Your task to perform on an android device: Show the shopping cart on target. Add razer kraken to the cart on target Image 0: 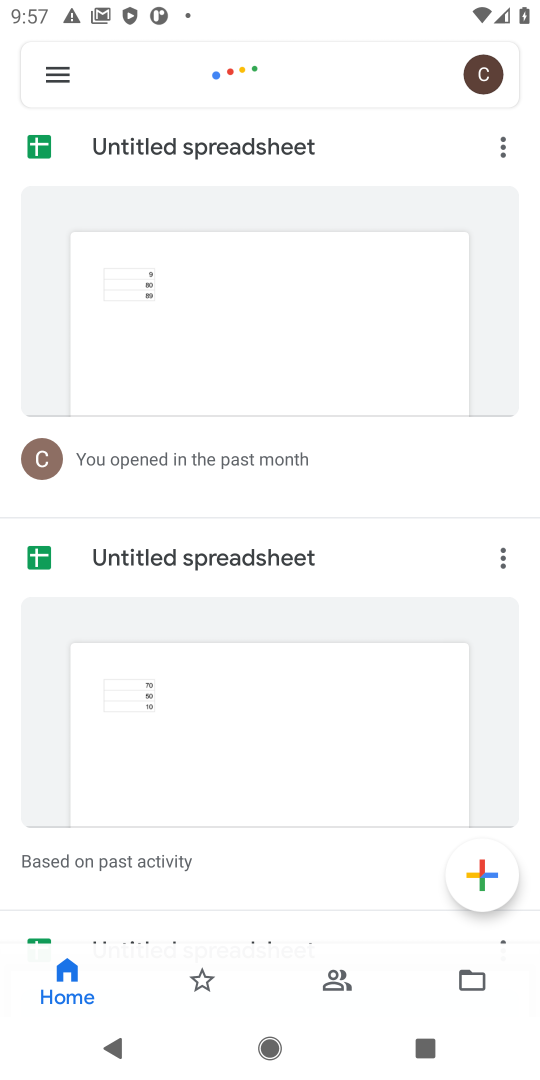
Step 0: press home button
Your task to perform on an android device: Show the shopping cart on target. Add razer kraken to the cart on target Image 1: 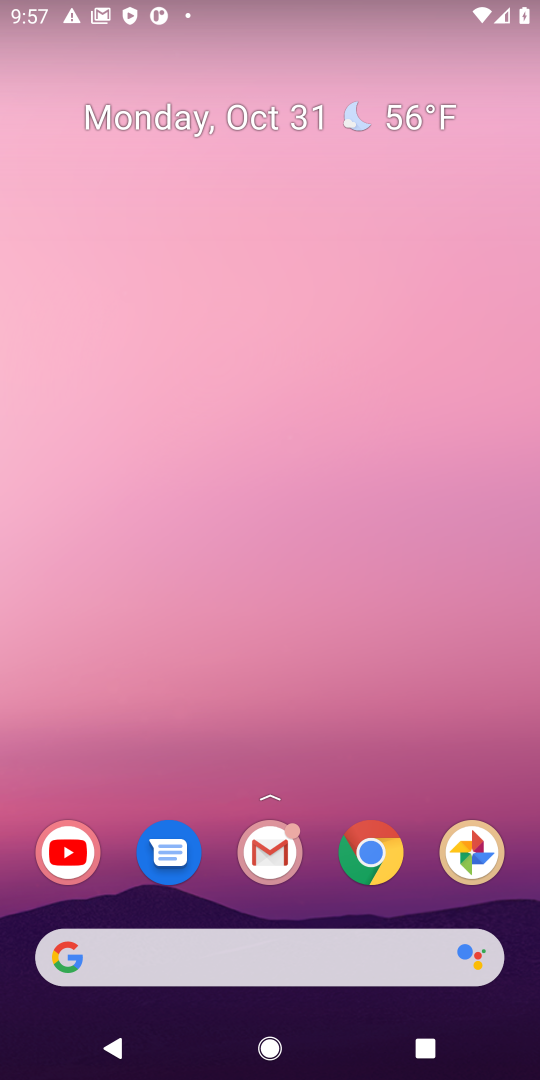
Step 1: drag from (314, 794) to (385, 0)
Your task to perform on an android device: Show the shopping cart on target. Add razer kraken to the cart on target Image 2: 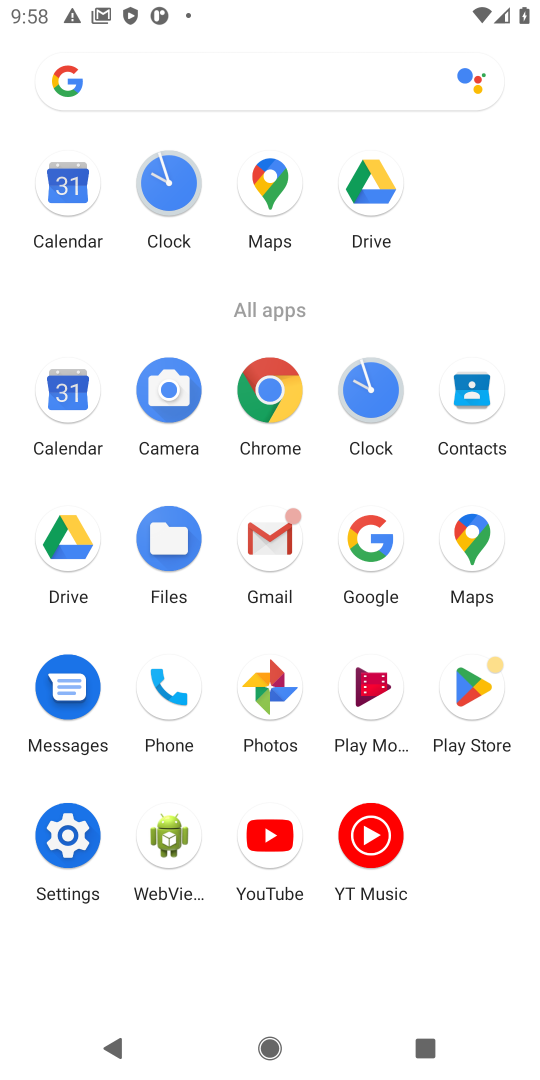
Step 2: click (270, 389)
Your task to perform on an android device: Show the shopping cart on target. Add razer kraken to the cart on target Image 3: 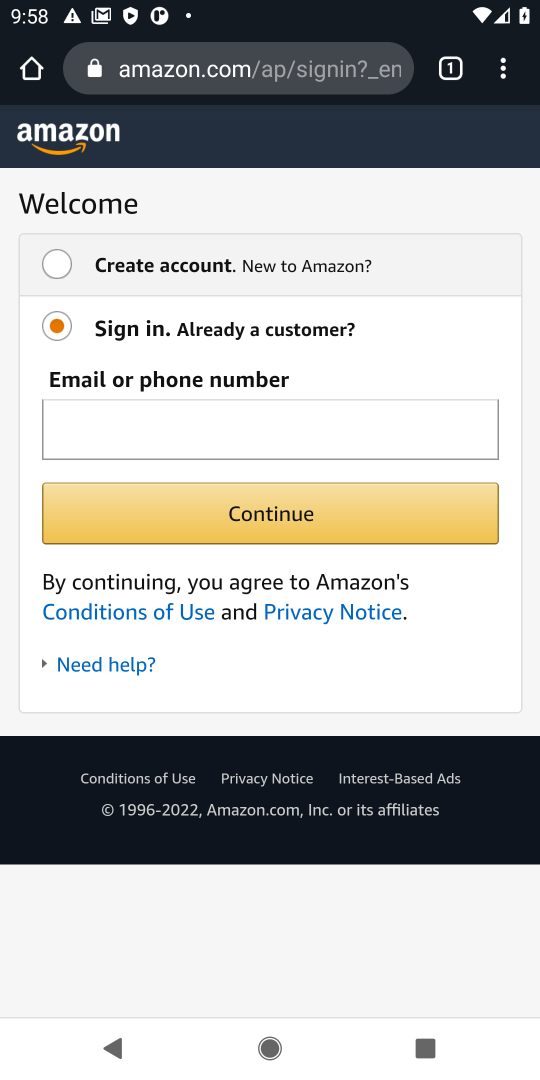
Step 3: click (175, 67)
Your task to perform on an android device: Show the shopping cart on target. Add razer kraken to the cart on target Image 4: 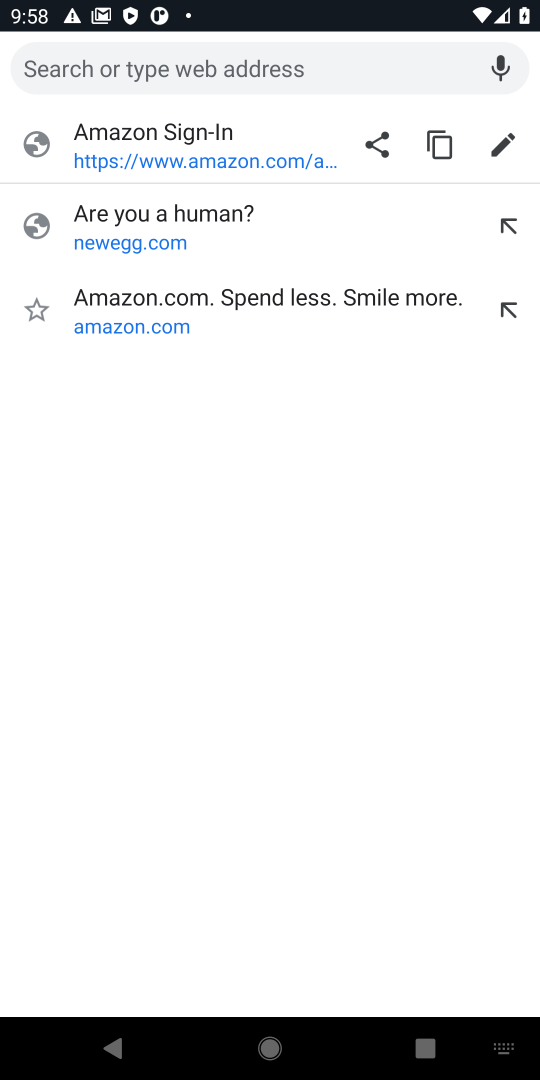
Step 4: type "target"
Your task to perform on an android device: Show the shopping cart on target. Add razer kraken to the cart on target Image 5: 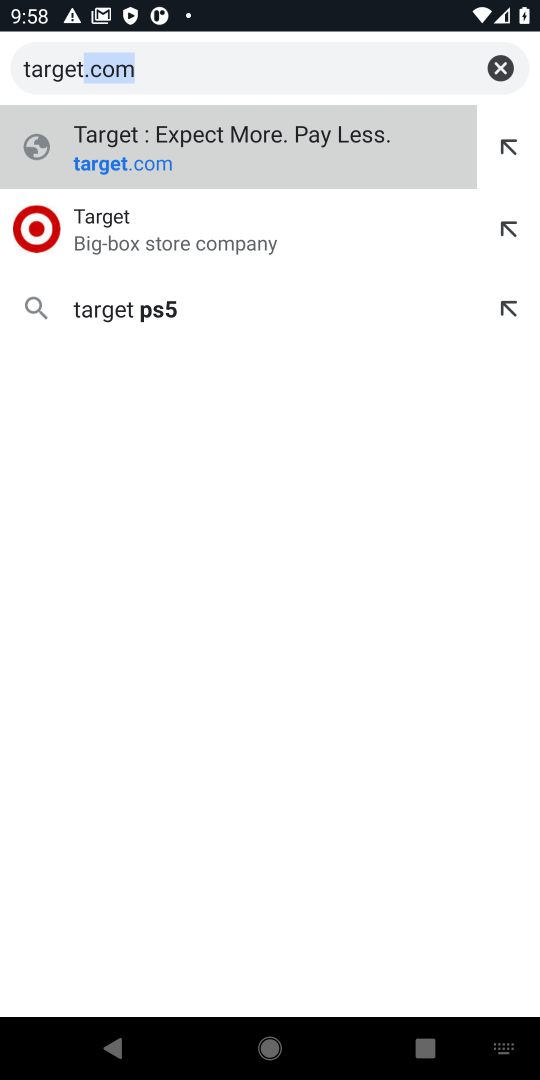
Step 5: type ""
Your task to perform on an android device: Show the shopping cart on target. Add razer kraken to the cart on target Image 6: 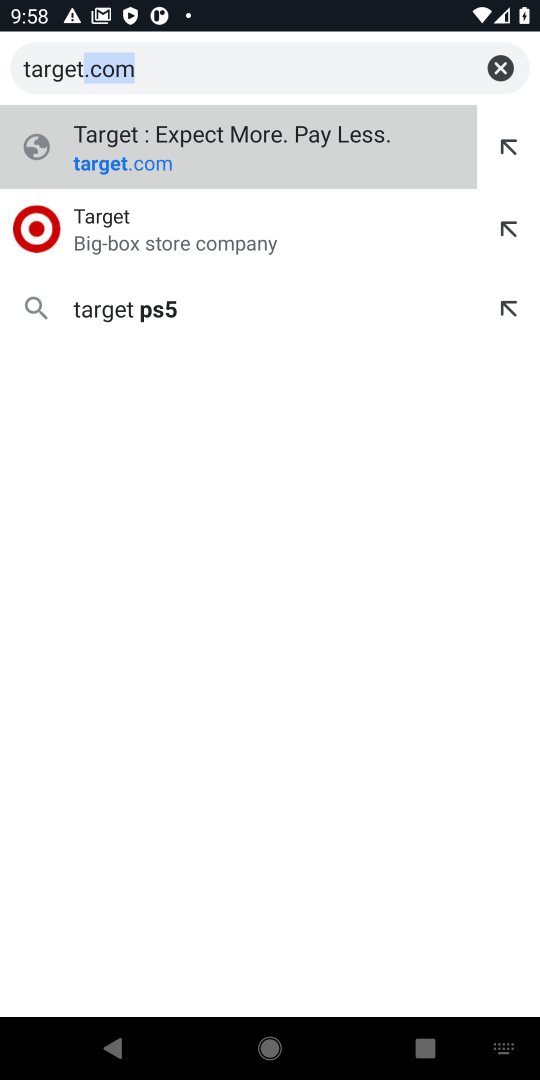
Step 6: click (155, 239)
Your task to perform on an android device: Show the shopping cart on target. Add razer kraken to the cart on target Image 7: 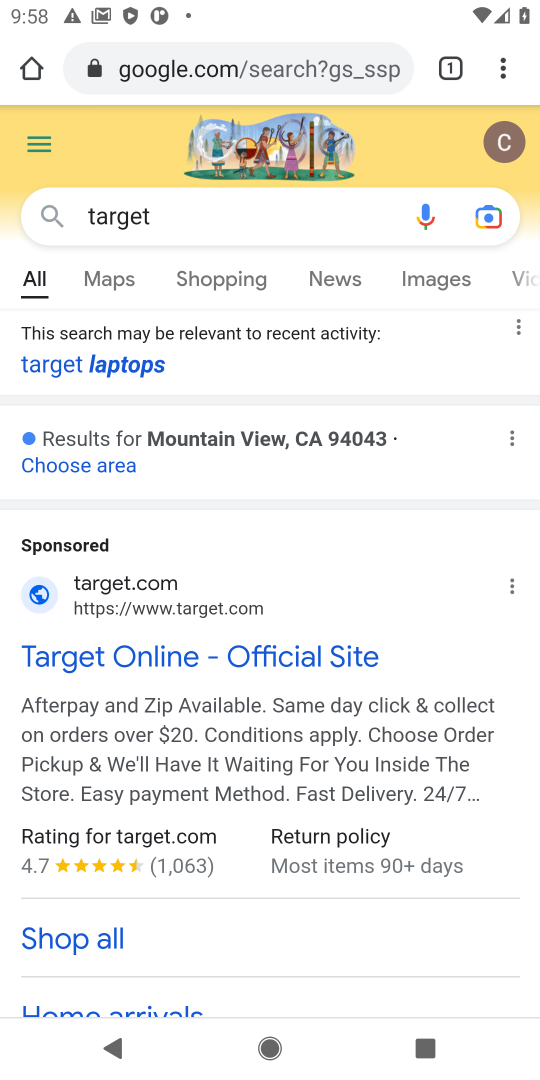
Step 7: click (156, 653)
Your task to perform on an android device: Show the shopping cart on target. Add razer kraken to the cart on target Image 8: 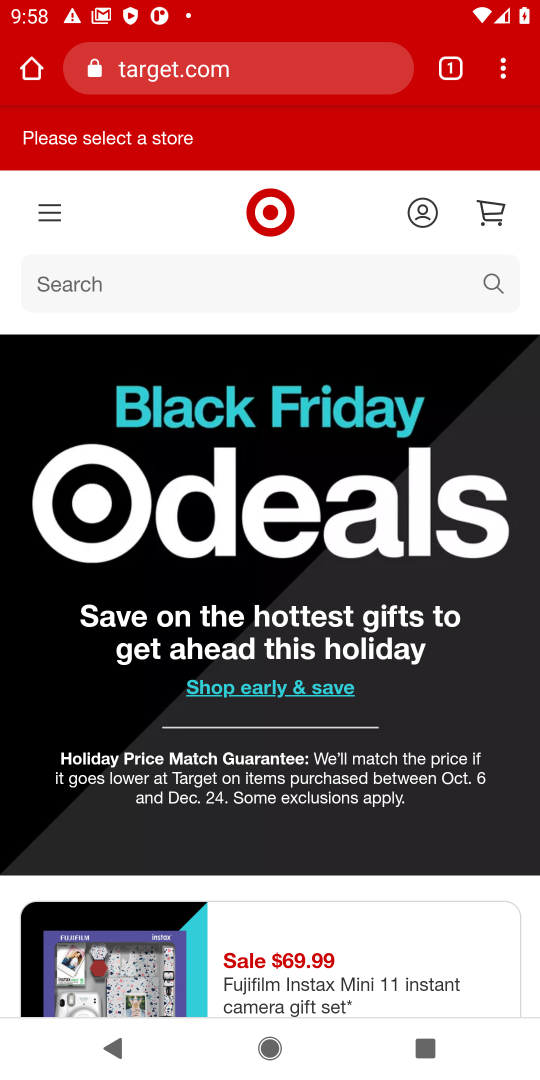
Step 8: click (100, 282)
Your task to perform on an android device: Show the shopping cart on target. Add razer kraken to the cart on target Image 9: 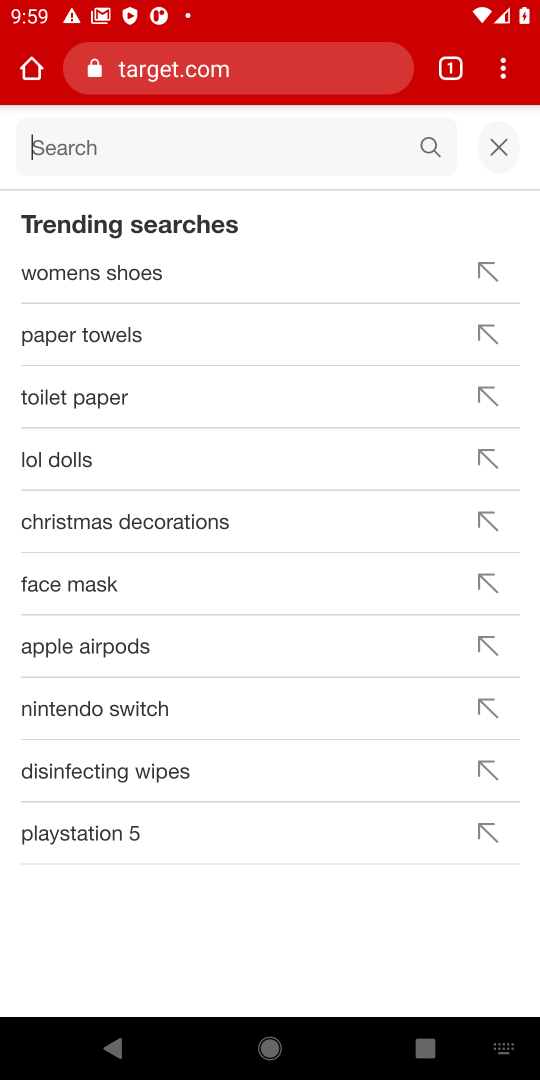
Step 9: type "razer kraken"
Your task to perform on an android device: Show the shopping cart on target. Add razer kraken to the cart on target Image 10: 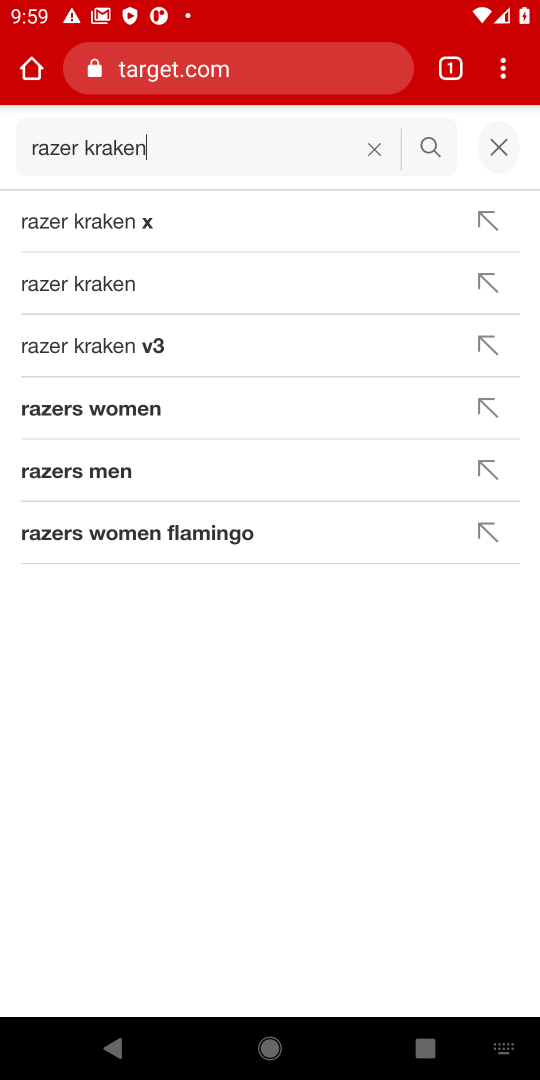
Step 10: click (151, 282)
Your task to perform on an android device: Show the shopping cart on target. Add razer kraken to the cart on target Image 11: 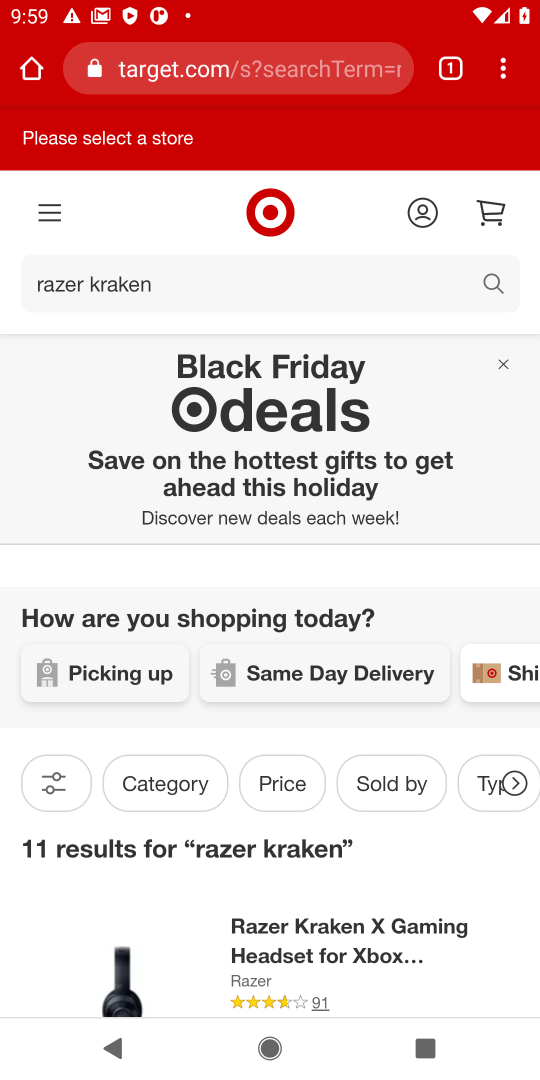
Step 11: drag from (406, 886) to (420, 420)
Your task to perform on an android device: Show the shopping cart on target. Add razer kraken to the cart on target Image 12: 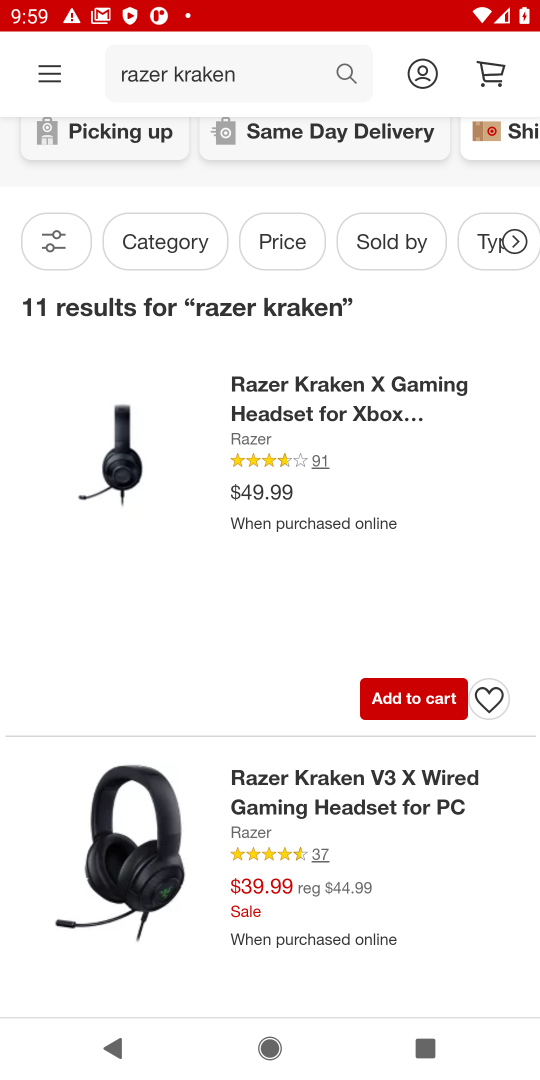
Step 12: click (250, 391)
Your task to perform on an android device: Show the shopping cart on target. Add razer kraken to the cart on target Image 13: 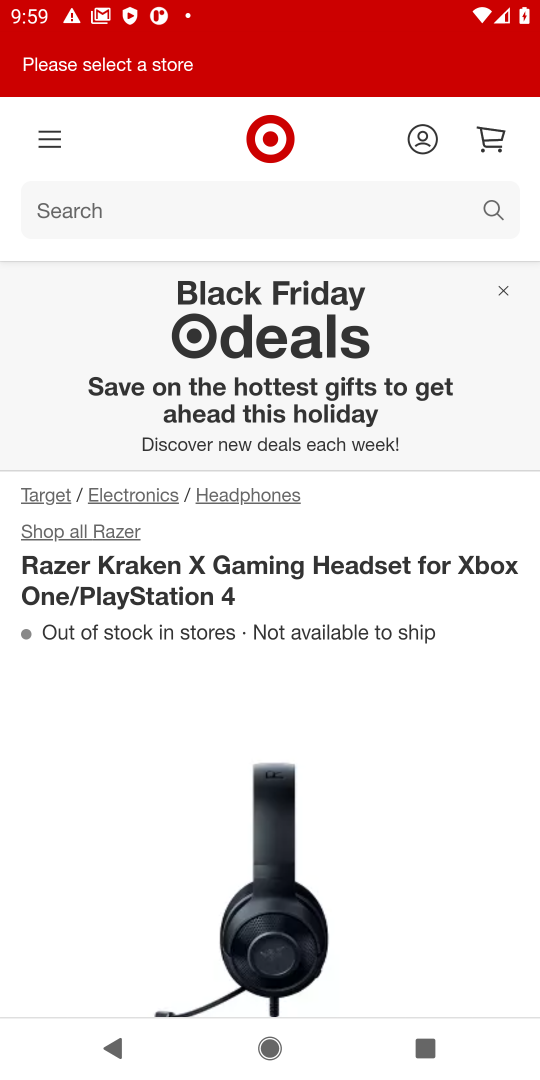
Step 13: drag from (412, 849) to (435, 264)
Your task to perform on an android device: Show the shopping cart on target. Add razer kraken to the cart on target Image 14: 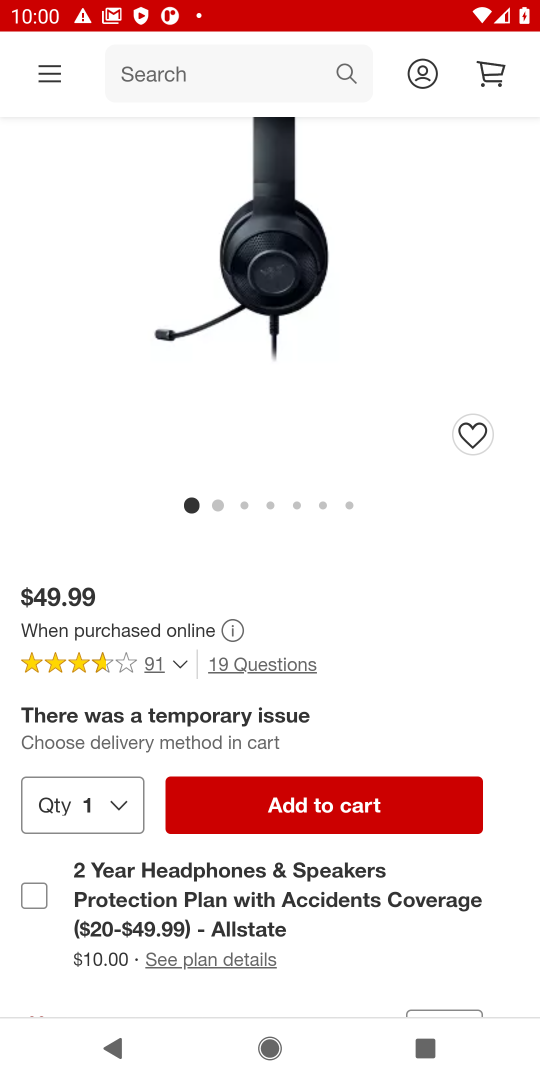
Step 14: click (322, 802)
Your task to perform on an android device: Show the shopping cart on target. Add razer kraken to the cart on target Image 15: 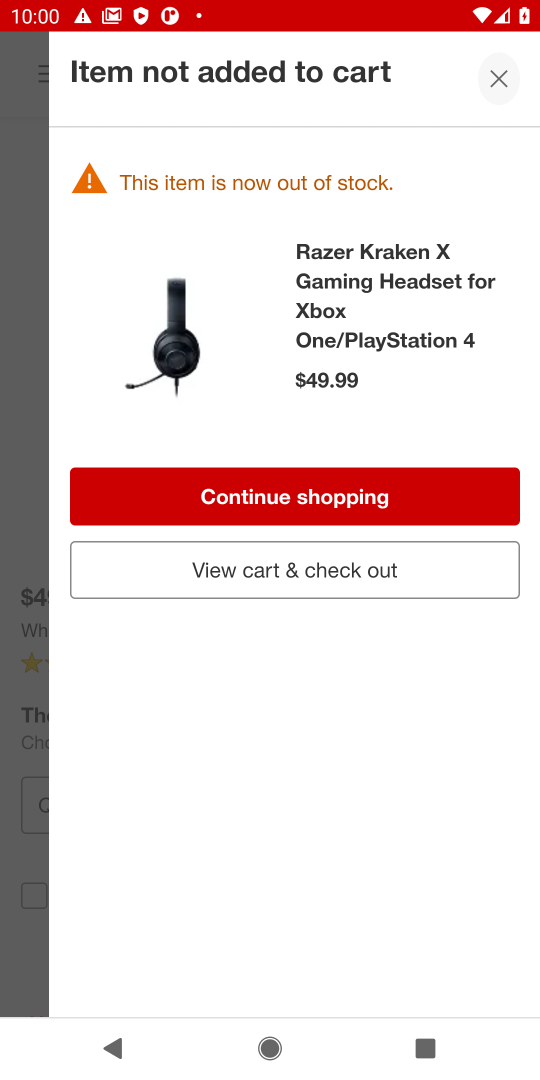
Step 15: click (501, 76)
Your task to perform on an android device: Show the shopping cart on target. Add razer kraken to the cart on target Image 16: 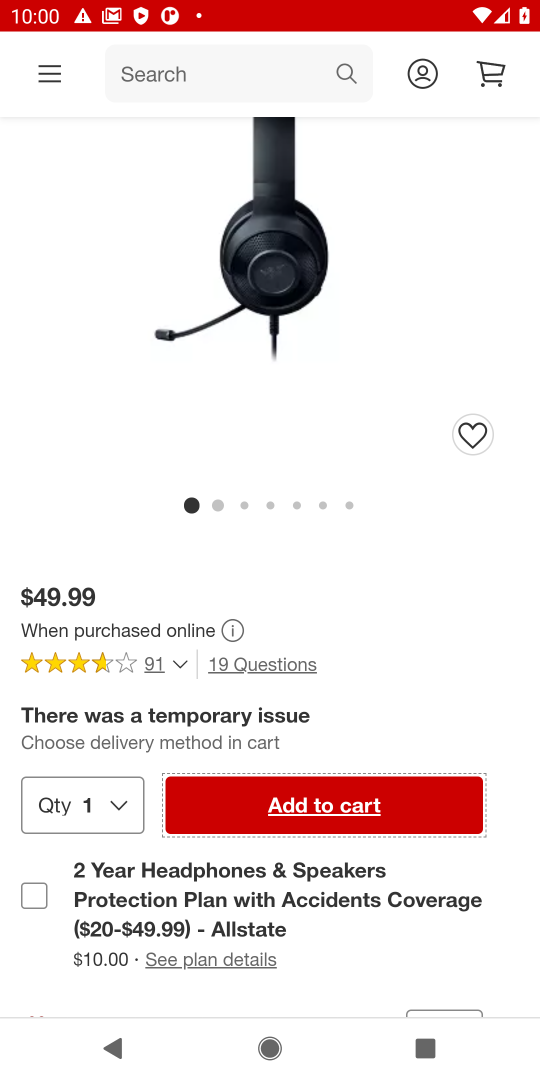
Step 16: click (497, 70)
Your task to perform on an android device: Show the shopping cart on target. Add razer kraken to the cart on target Image 17: 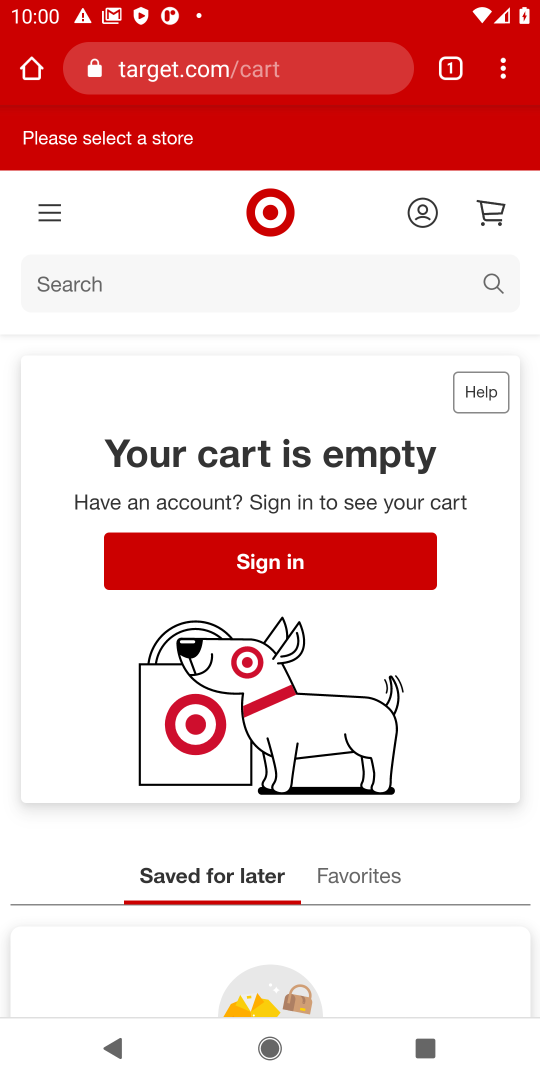
Step 17: press back button
Your task to perform on an android device: Show the shopping cart on target. Add razer kraken to the cart on target Image 18: 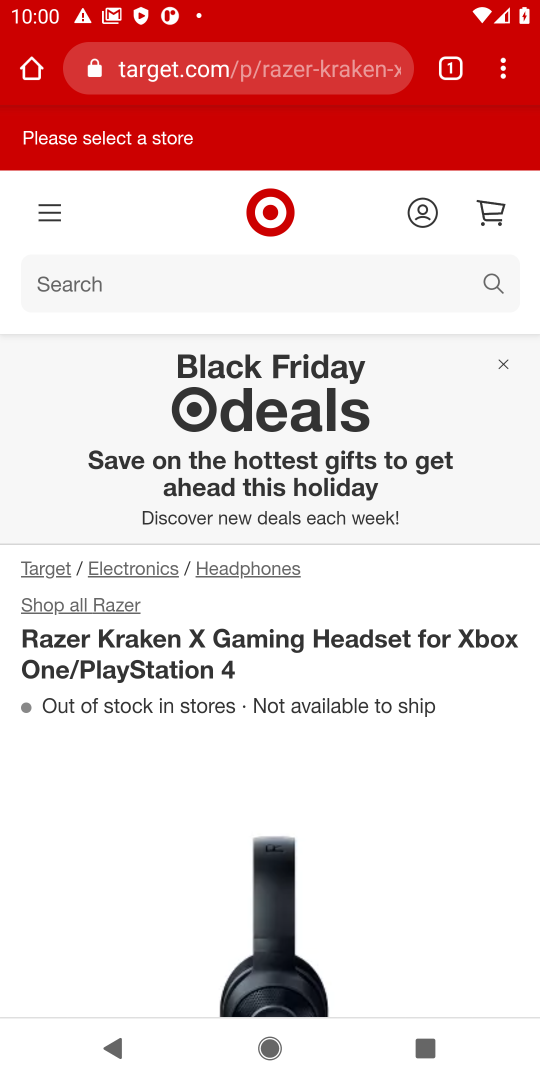
Step 18: drag from (282, 798) to (325, 174)
Your task to perform on an android device: Show the shopping cart on target. Add razer kraken to the cart on target Image 19: 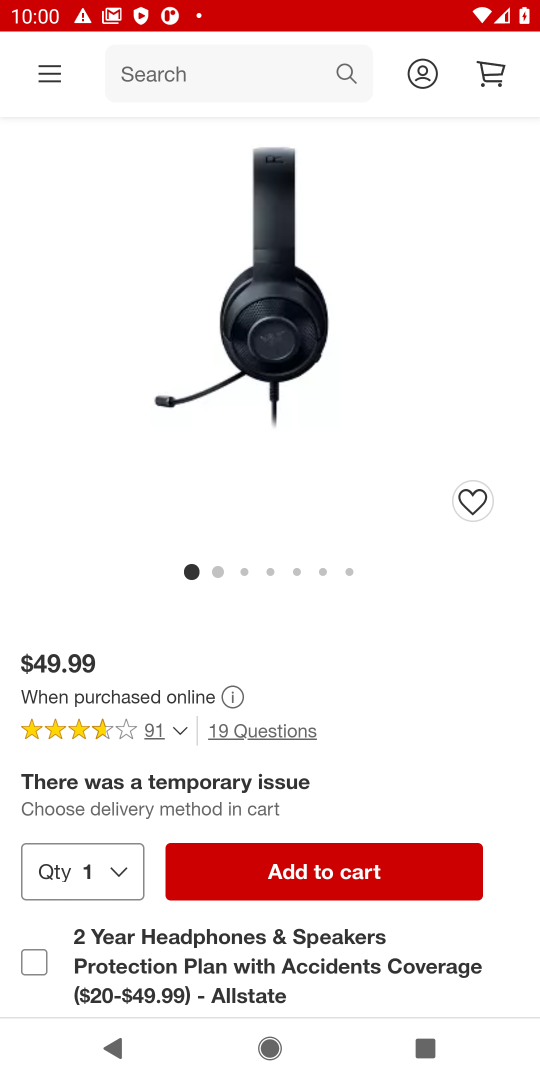
Step 19: click (316, 872)
Your task to perform on an android device: Show the shopping cart on target. Add razer kraken to the cart on target Image 20: 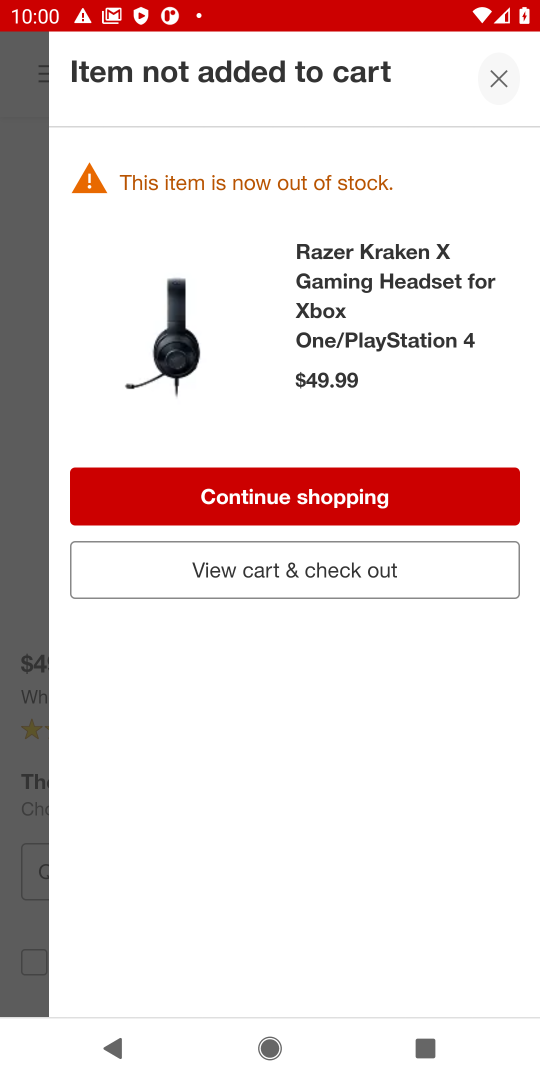
Step 20: click (498, 73)
Your task to perform on an android device: Show the shopping cart on target. Add razer kraken to the cart on target Image 21: 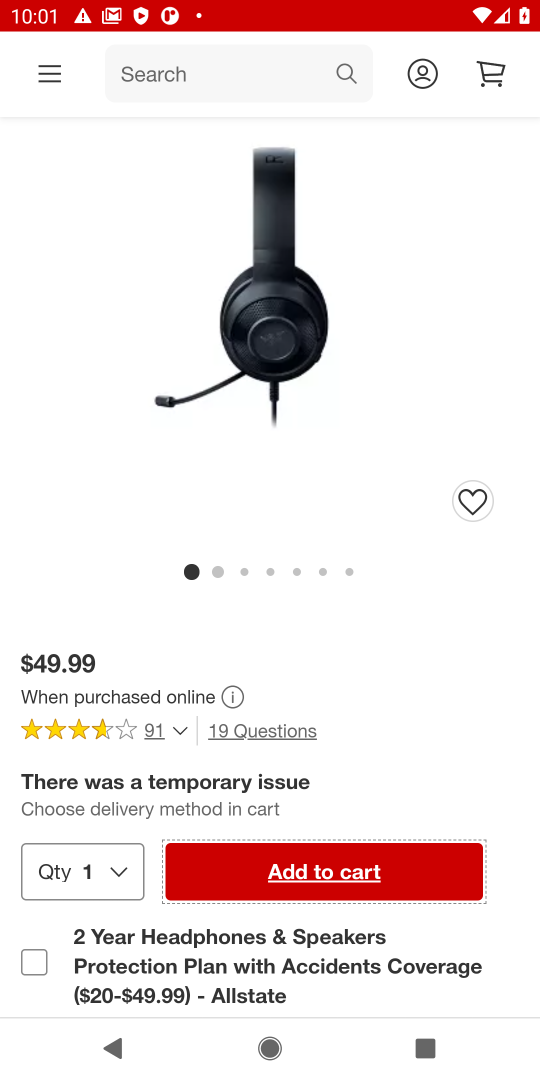
Step 21: drag from (180, 937) to (205, 188)
Your task to perform on an android device: Show the shopping cart on target. Add razer kraken to the cart on target Image 22: 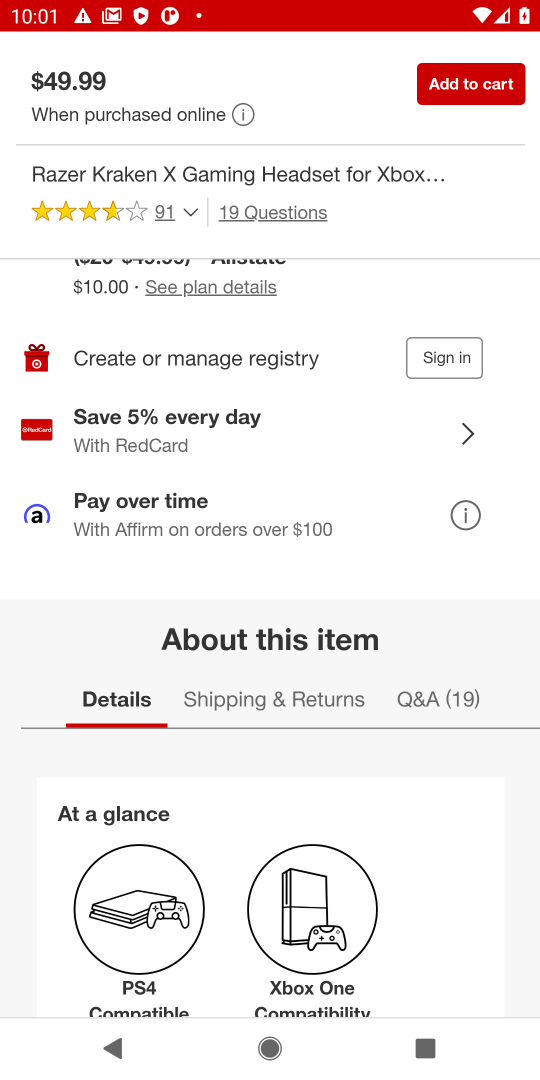
Step 22: click (470, 87)
Your task to perform on an android device: Show the shopping cart on target. Add razer kraken to the cart on target Image 23: 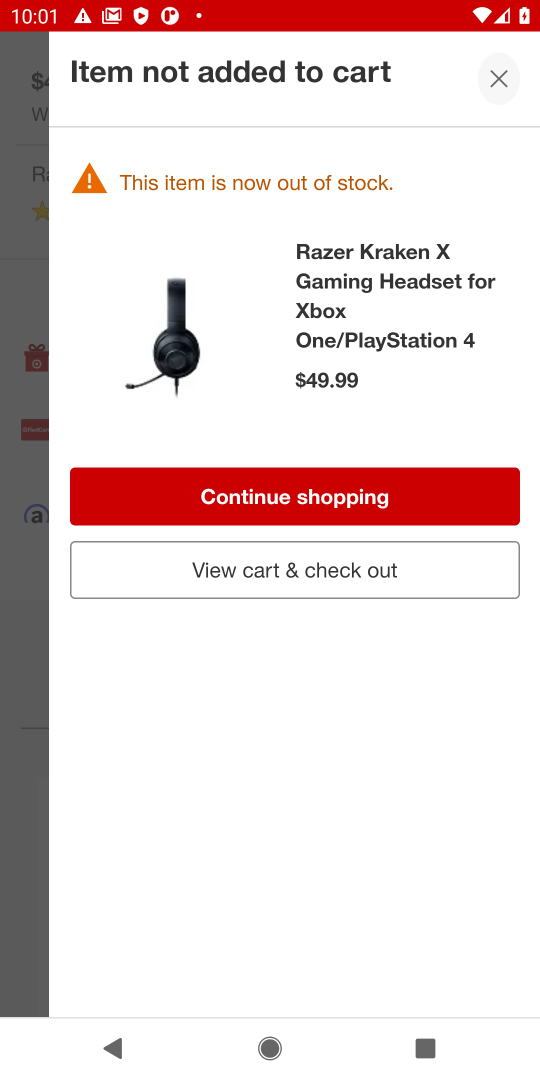
Step 23: task complete